Your task to perform on an android device: What's the weather? Image 0: 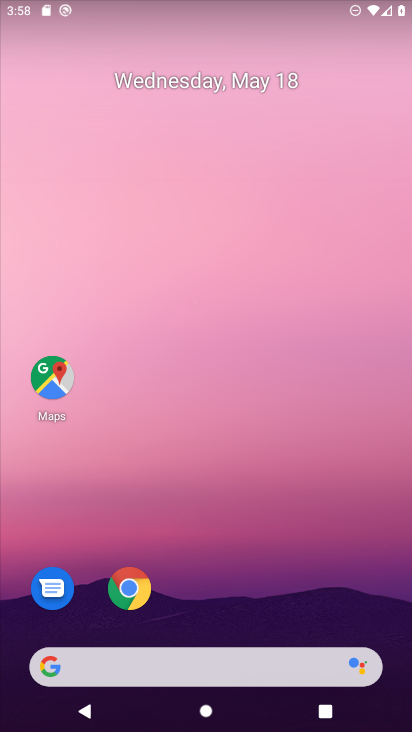
Step 0: drag from (270, 603) to (282, 255)
Your task to perform on an android device: What's the weather? Image 1: 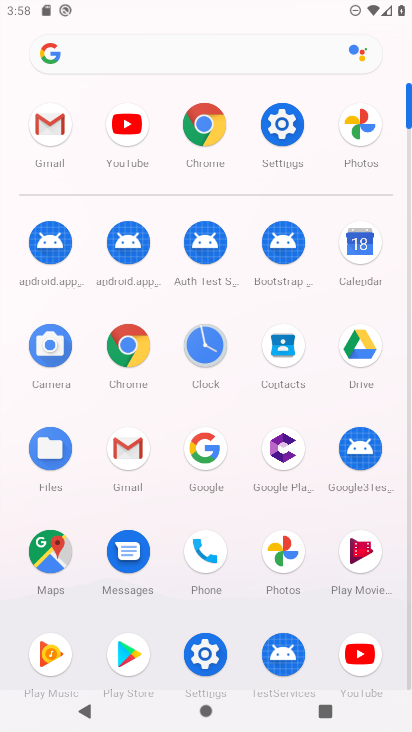
Step 1: click (192, 65)
Your task to perform on an android device: What's the weather? Image 2: 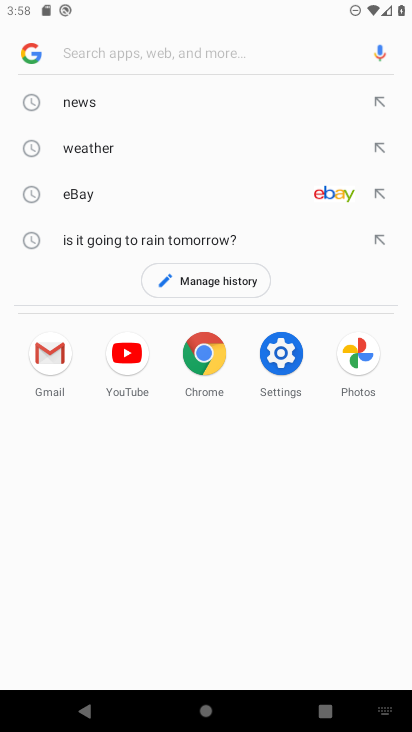
Step 2: click (132, 144)
Your task to perform on an android device: What's the weather? Image 3: 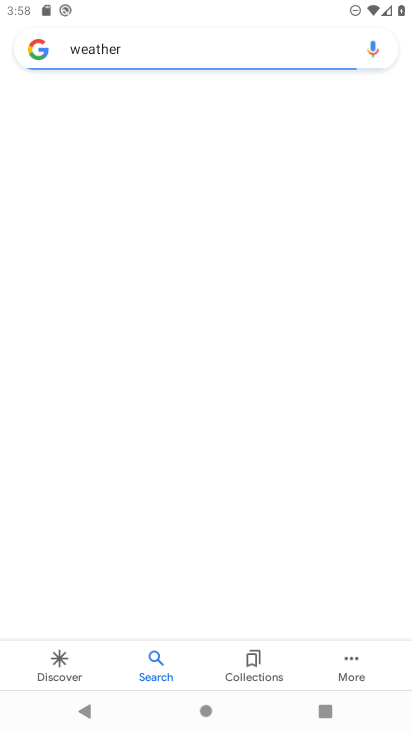
Step 3: task complete